Your task to perform on an android device: clear history in the chrome app Image 0: 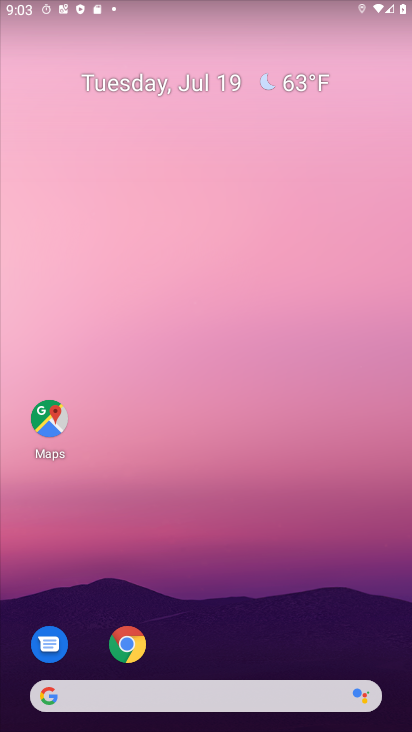
Step 0: drag from (233, 712) to (176, 190)
Your task to perform on an android device: clear history in the chrome app Image 1: 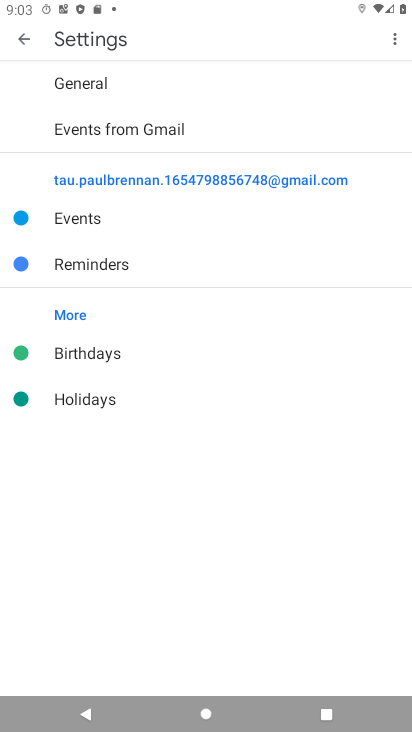
Step 1: press back button
Your task to perform on an android device: clear history in the chrome app Image 2: 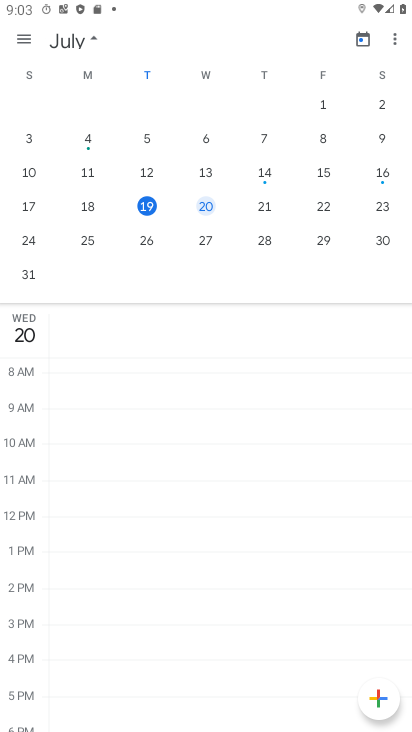
Step 2: press home button
Your task to perform on an android device: clear history in the chrome app Image 3: 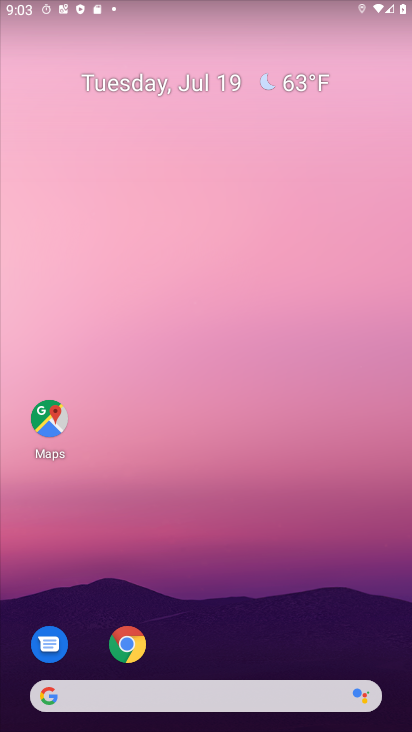
Step 3: drag from (265, 508) to (238, 84)
Your task to perform on an android device: clear history in the chrome app Image 4: 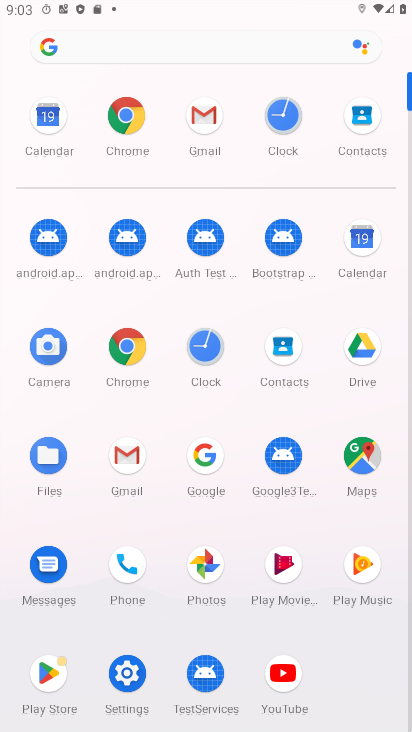
Step 4: click (125, 115)
Your task to perform on an android device: clear history in the chrome app Image 5: 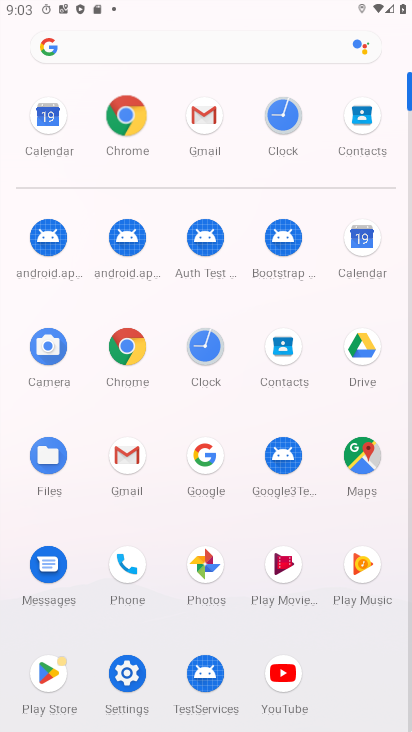
Step 5: click (125, 115)
Your task to perform on an android device: clear history in the chrome app Image 6: 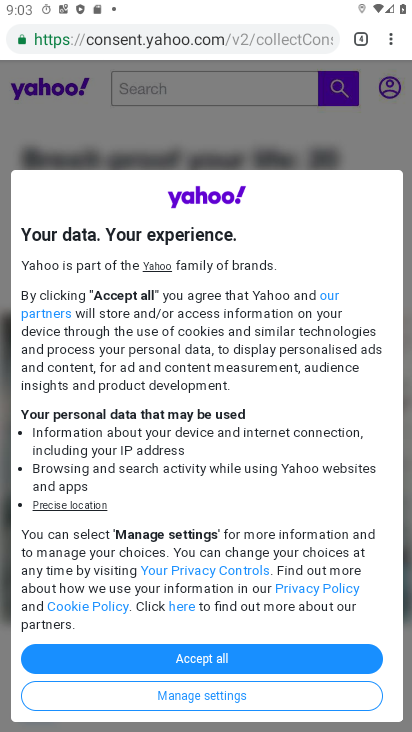
Step 6: task complete